Your task to perform on an android device: toggle wifi Image 0: 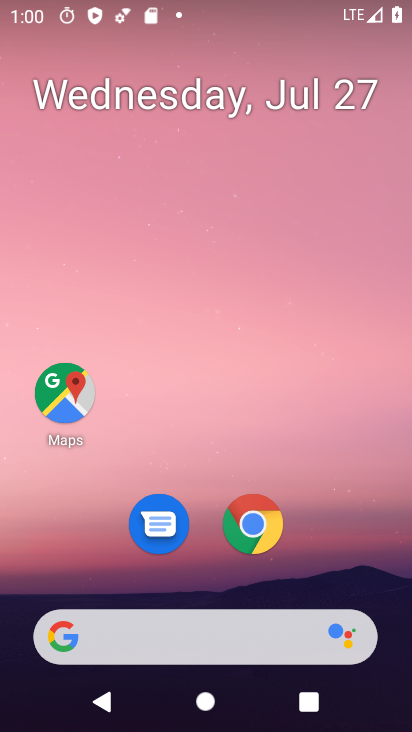
Step 0: drag from (354, 74) to (354, 33)
Your task to perform on an android device: toggle wifi Image 1: 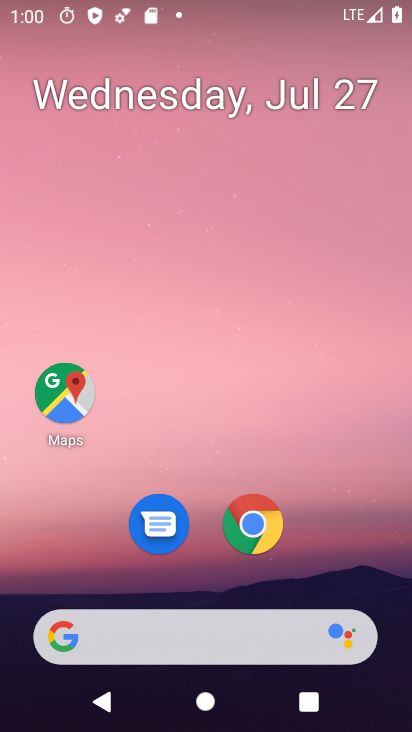
Step 1: drag from (323, 519) to (371, 35)
Your task to perform on an android device: toggle wifi Image 2: 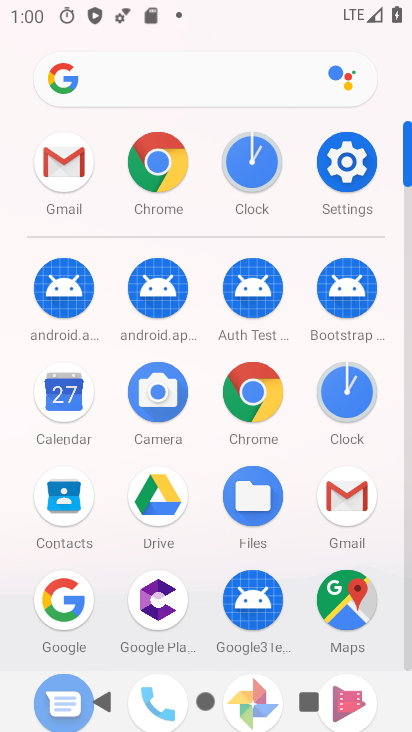
Step 2: click (343, 147)
Your task to perform on an android device: toggle wifi Image 3: 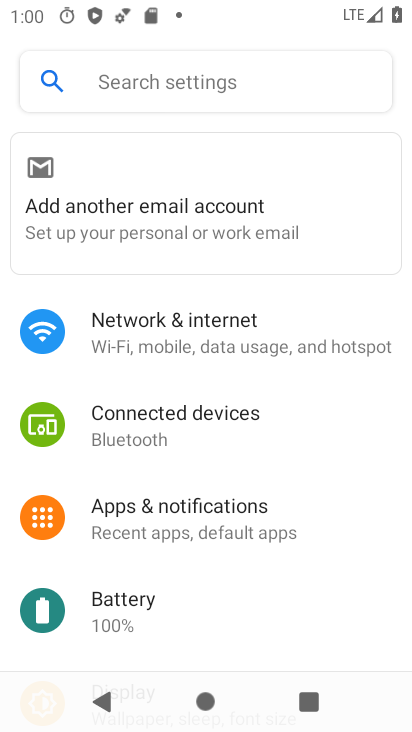
Step 3: click (233, 329)
Your task to perform on an android device: toggle wifi Image 4: 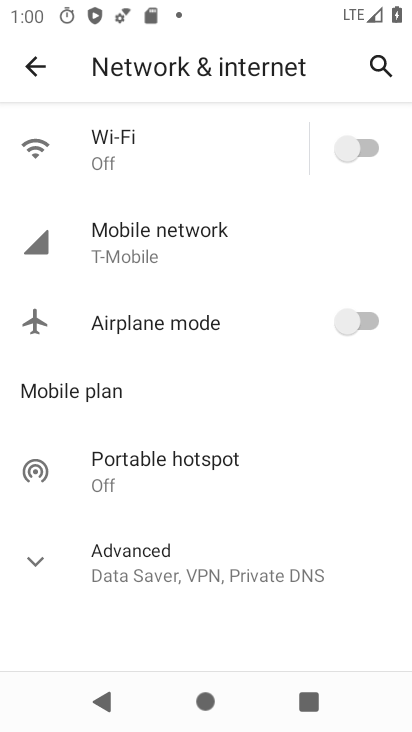
Step 4: click (357, 146)
Your task to perform on an android device: toggle wifi Image 5: 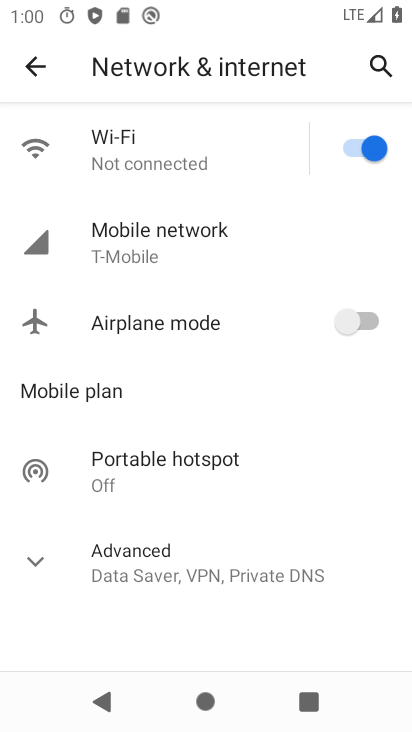
Step 5: task complete